Your task to perform on an android device: turn off airplane mode Image 0: 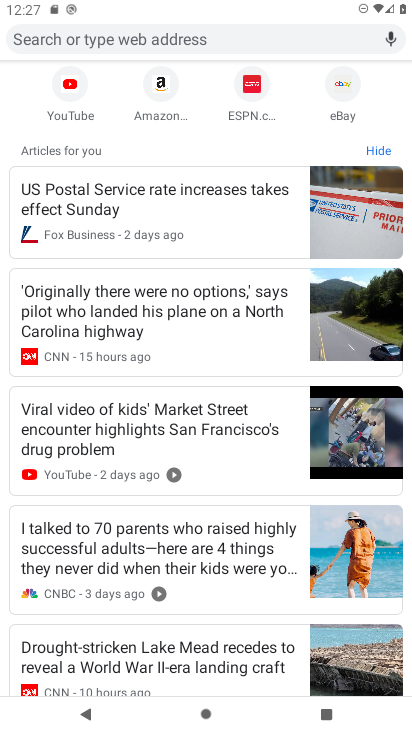
Step 0: press home button
Your task to perform on an android device: turn off airplane mode Image 1: 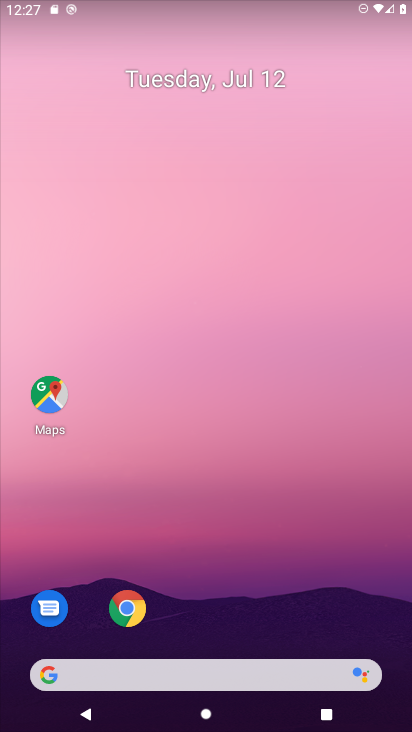
Step 1: drag from (228, 639) to (172, 52)
Your task to perform on an android device: turn off airplane mode Image 2: 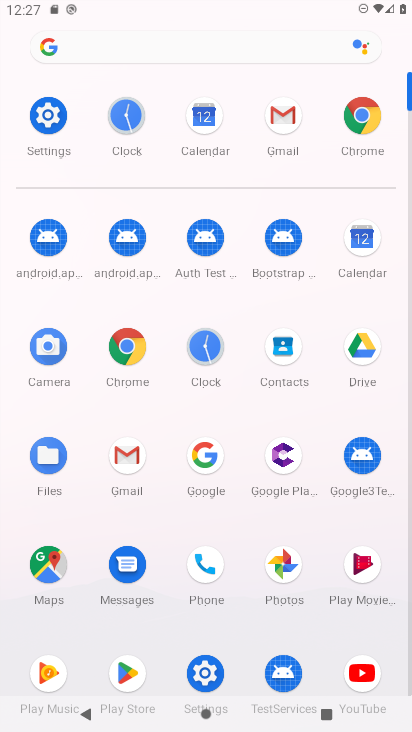
Step 2: click (52, 132)
Your task to perform on an android device: turn off airplane mode Image 3: 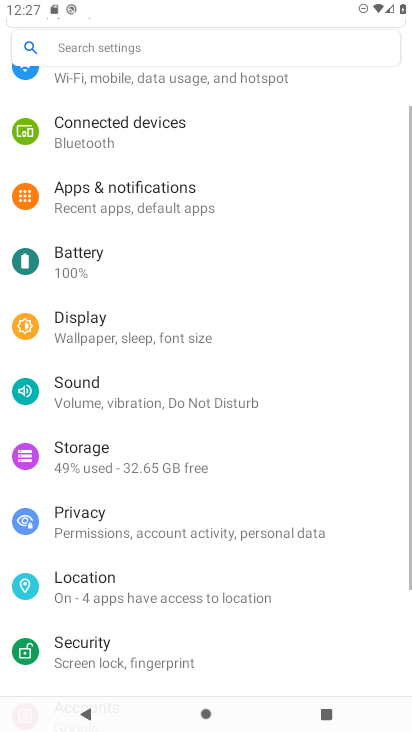
Step 3: drag from (101, 129) to (137, 535)
Your task to perform on an android device: turn off airplane mode Image 4: 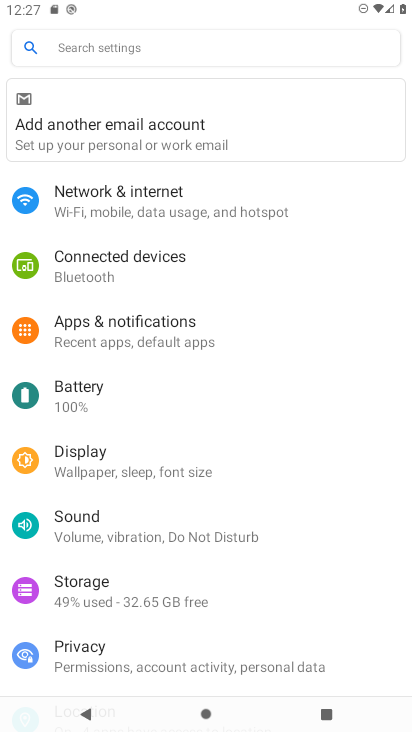
Step 4: click (114, 210)
Your task to perform on an android device: turn off airplane mode Image 5: 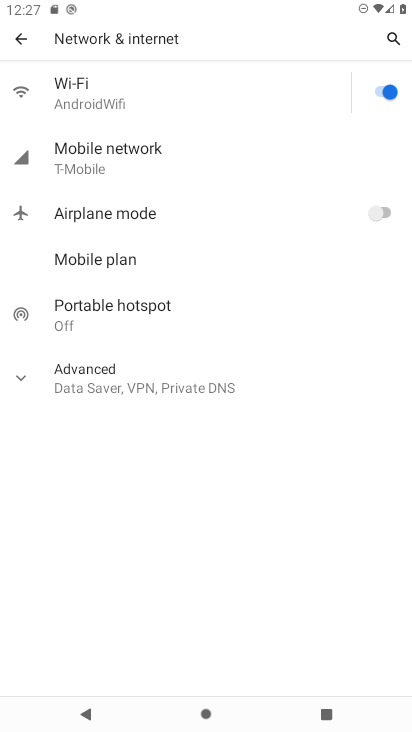
Step 5: task complete